Your task to perform on an android device: Show me popular videos on Youtube Image 0: 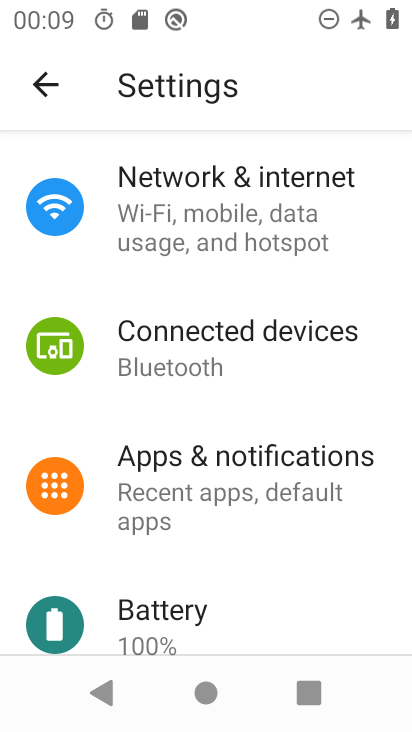
Step 0: press home button
Your task to perform on an android device: Show me popular videos on Youtube Image 1: 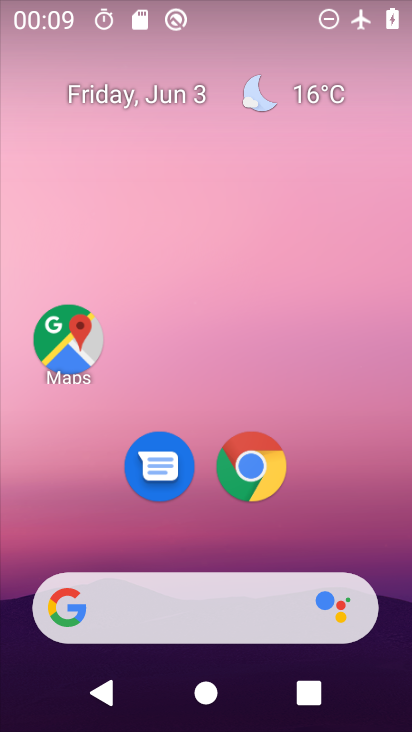
Step 1: drag from (194, 537) to (196, 241)
Your task to perform on an android device: Show me popular videos on Youtube Image 2: 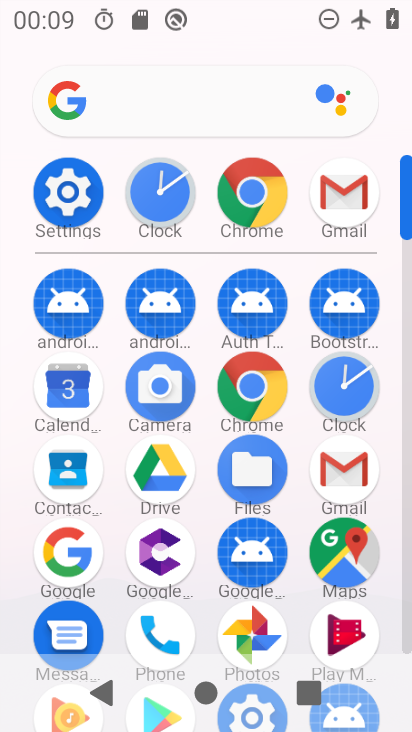
Step 2: drag from (265, 631) to (249, 357)
Your task to perform on an android device: Show me popular videos on Youtube Image 3: 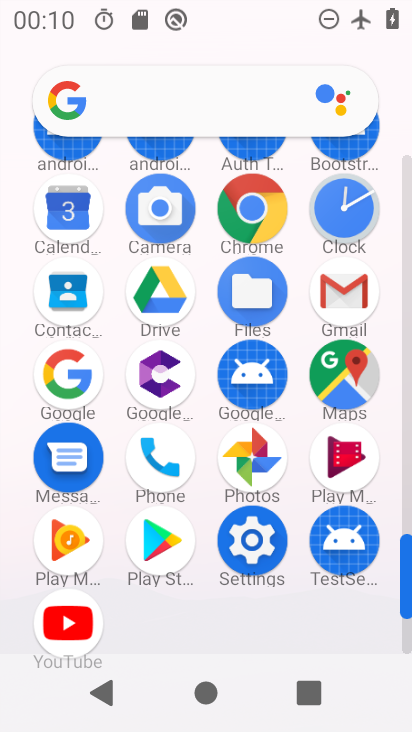
Step 3: click (79, 630)
Your task to perform on an android device: Show me popular videos on Youtube Image 4: 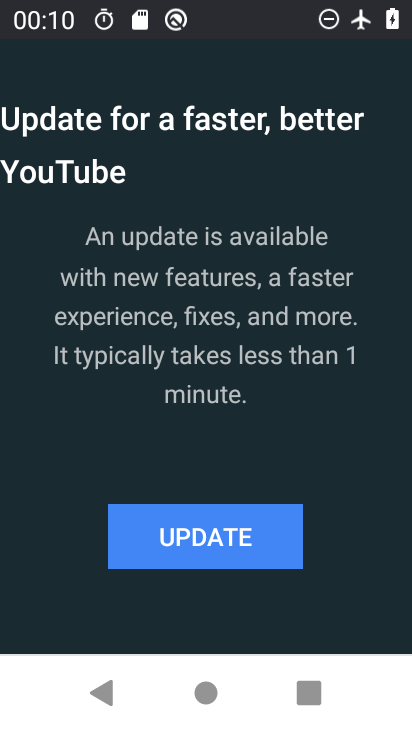
Step 4: click (186, 536)
Your task to perform on an android device: Show me popular videos on Youtube Image 5: 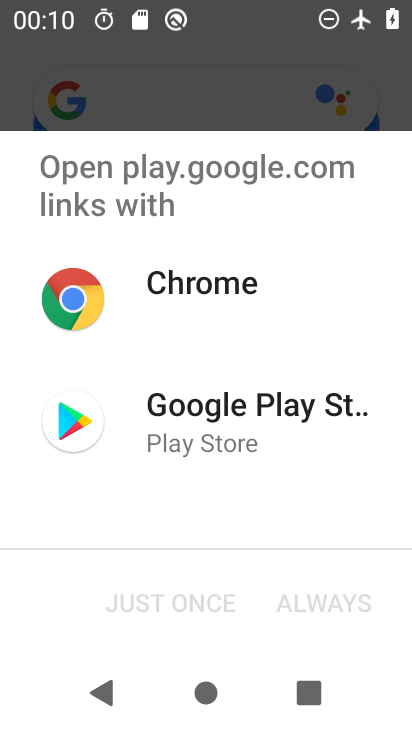
Step 5: click (152, 434)
Your task to perform on an android device: Show me popular videos on Youtube Image 6: 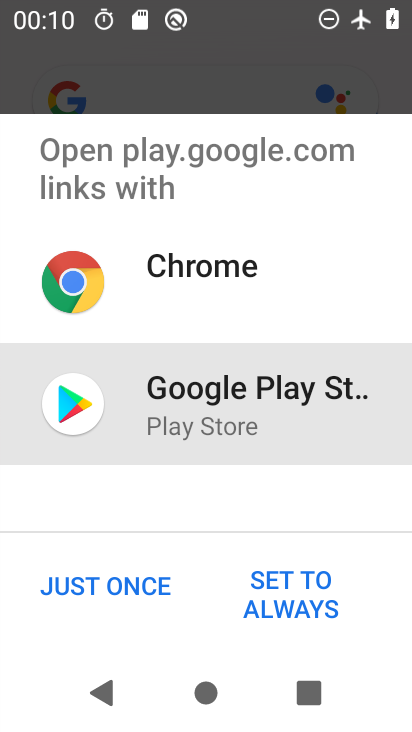
Step 6: click (136, 598)
Your task to perform on an android device: Show me popular videos on Youtube Image 7: 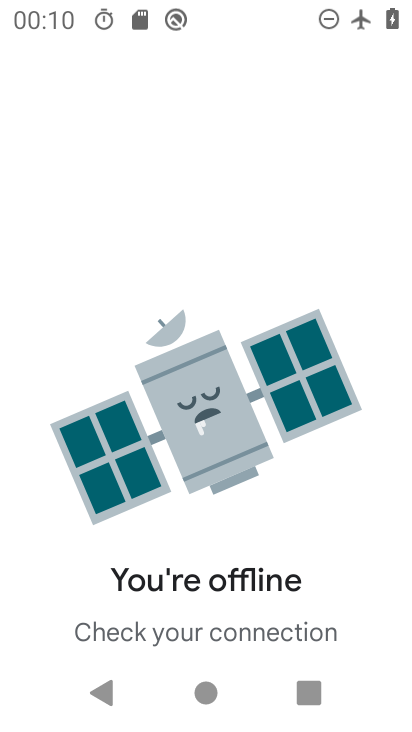
Step 7: task complete